Your task to perform on an android device: open a new tab in the chrome app Image 0: 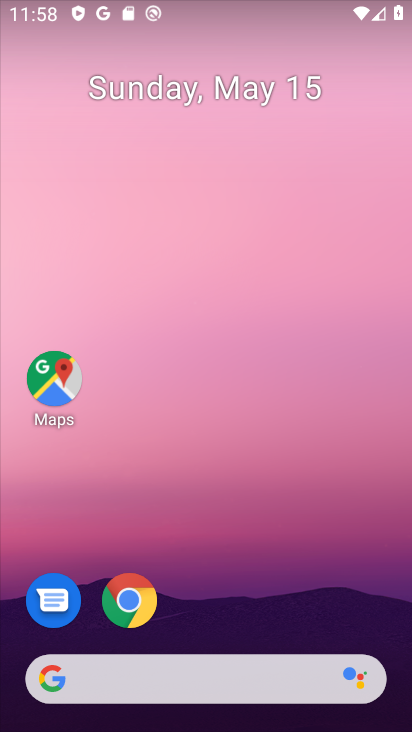
Step 0: click (126, 595)
Your task to perform on an android device: open a new tab in the chrome app Image 1: 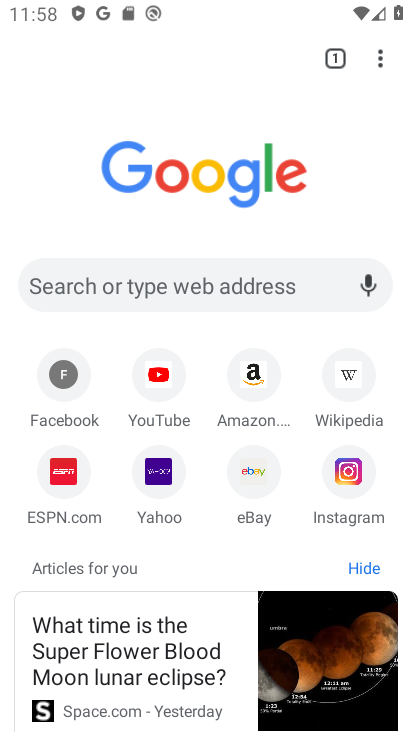
Step 1: click (380, 64)
Your task to perform on an android device: open a new tab in the chrome app Image 2: 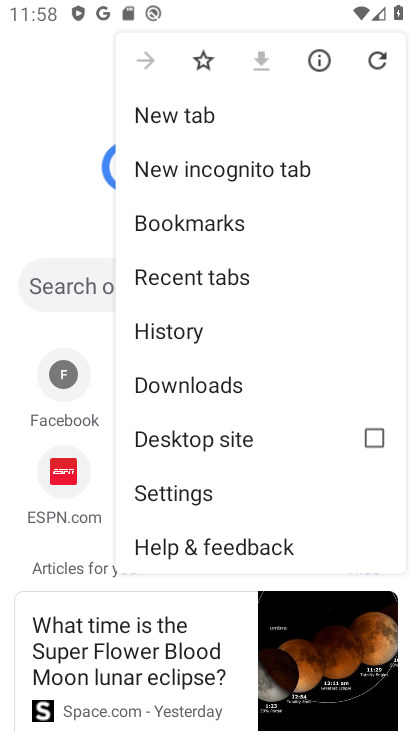
Step 2: click (175, 113)
Your task to perform on an android device: open a new tab in the chrome app Image 3: 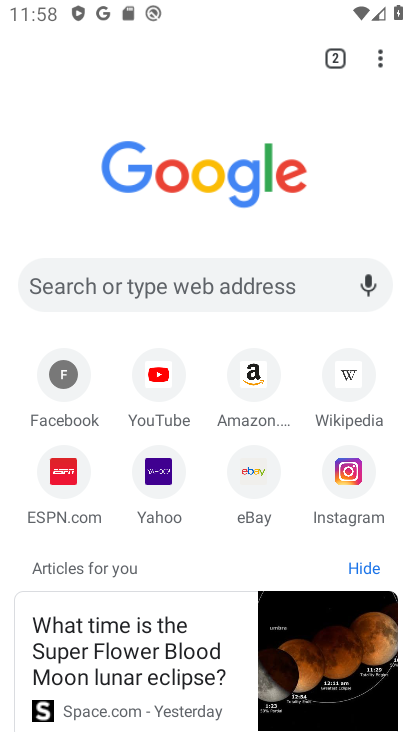
Step 3: task complete